Your task to perform on an android device: Find coffee shops on Maps Image 0: 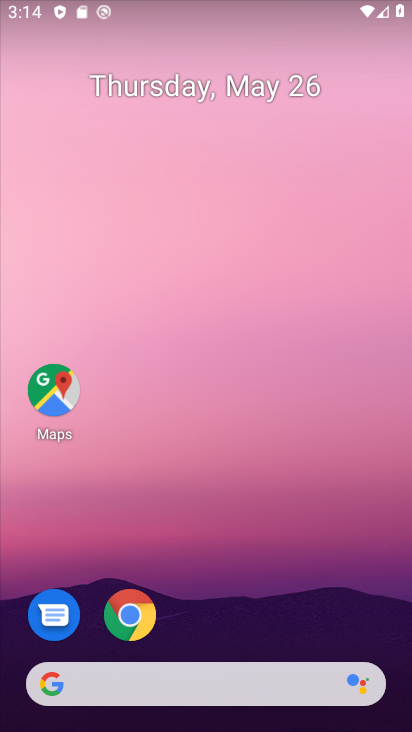
Step 0: click (51, 377)
Your task to perform on an android device: Find coffee shops on Maps Image 1: 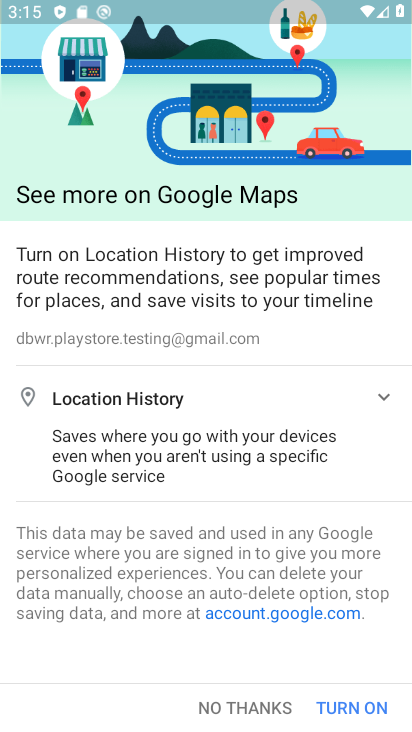
Step 1: click (348, 699)
Your task to perform on an android device: Find coffee shops on Maps Image 2: 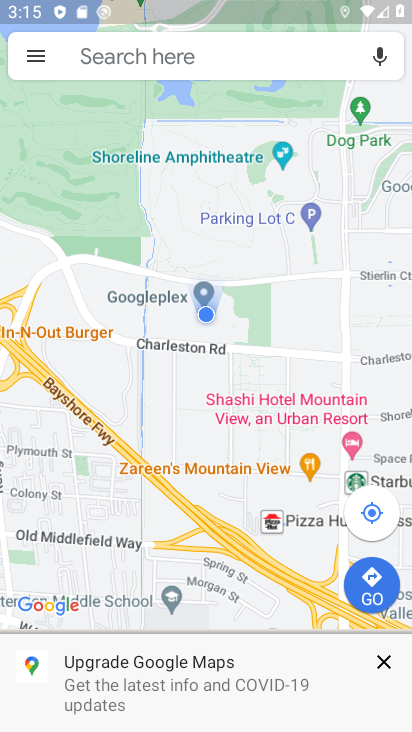
Step 2: click (208, 52)
Your task to perform on an android device: Find coffee shops on Maps Image 3: 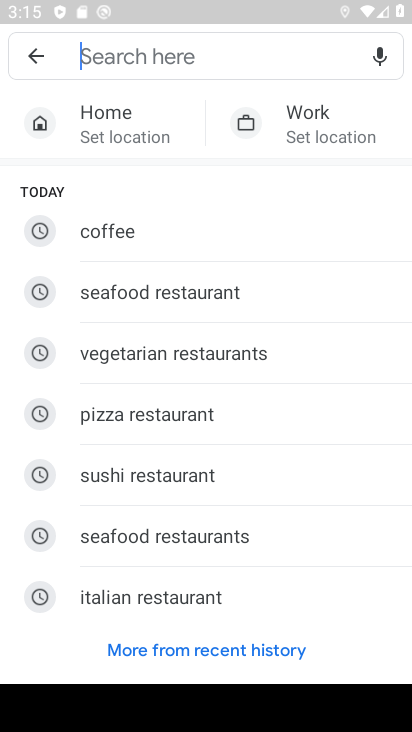
Step 3: click (191, 237)
Your task to perform on an android device: Find coffee shops on Maps Image 4: 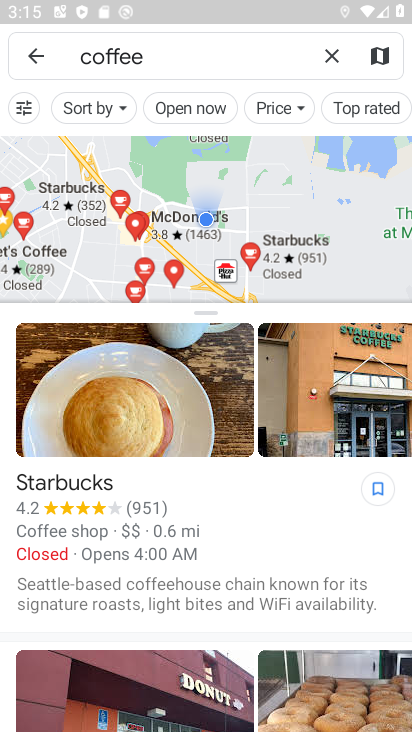
Step 4: task complete